Your task to perform on an android device: turn off javascript in the chrome app Image 0: 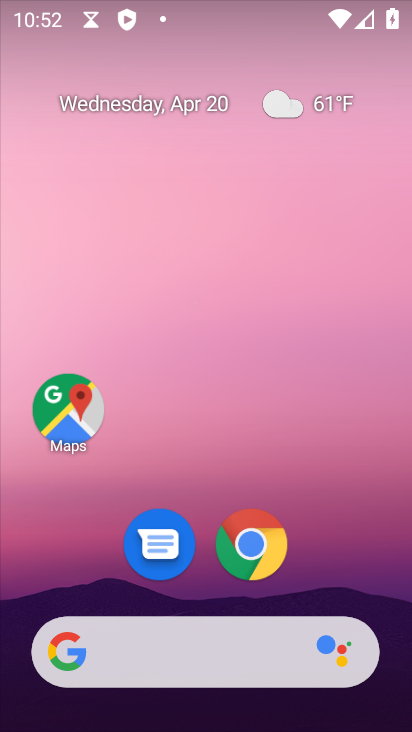
Step 0: drag from (133, 655) to (273, 138)
Your task to perform on an android device: turn off javascript in the chrome app Image 1: 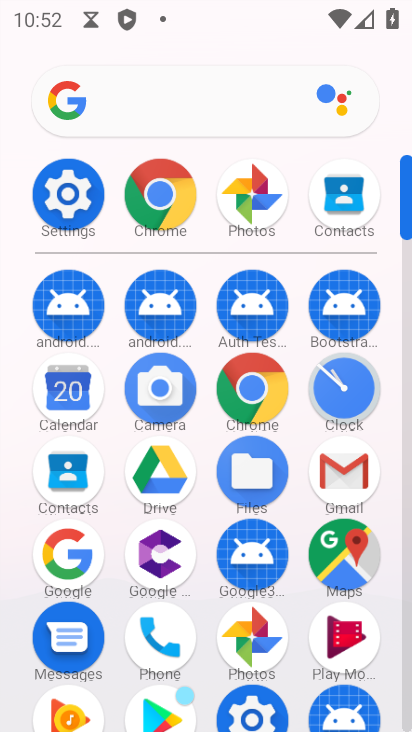
Step 1: click (161, 202)
Your task to perform on an android device: turn off javascript in the chrome app Image 2: 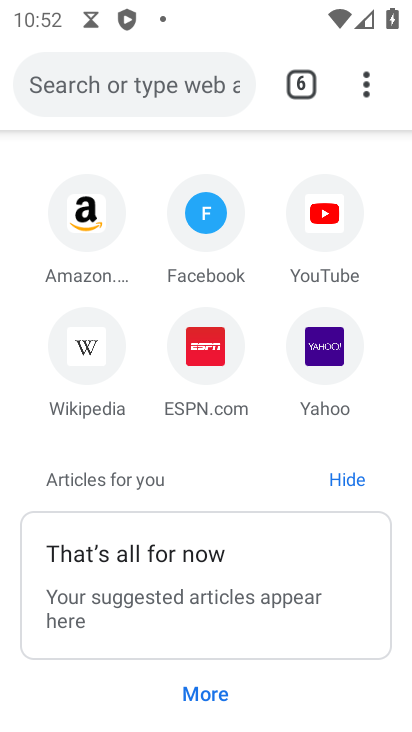
Step 2: click (358, 101)
Your task to perform on an android device: turn off javascript in the chrome app Image 3: 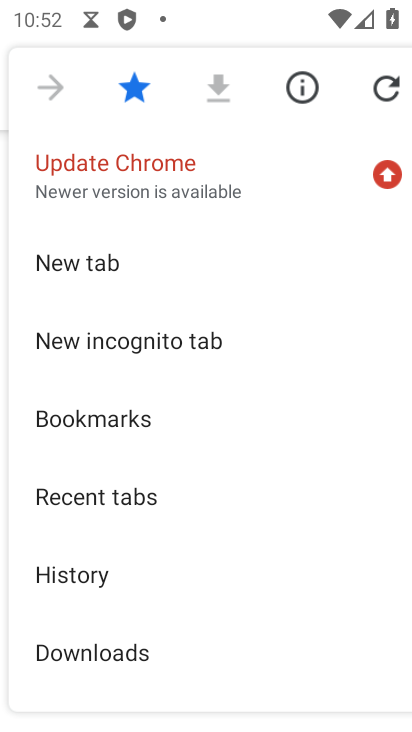
Step 3: drag from (144, 612) to (308, 167)
Your task to perform on an android device: turn off javascript in the chrome app Image 4: 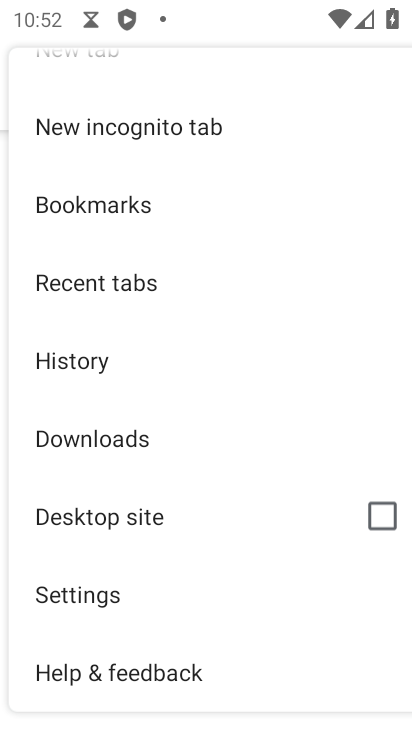
Step 4: click (95, 596)
Your task to perform on an android device: turn off javascript in the chrome app Image 5: 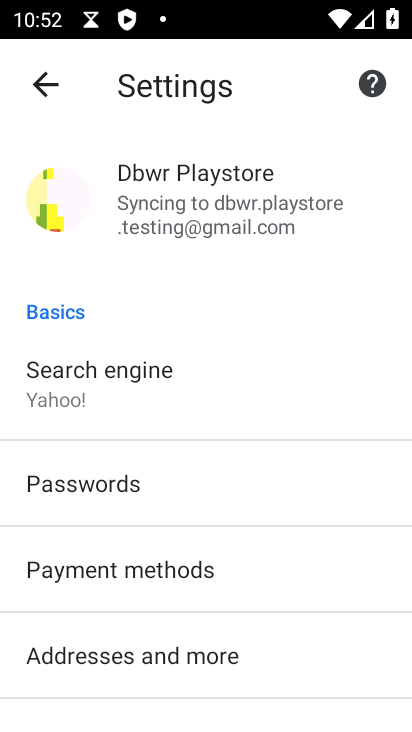
Step 5: drag from (152, 629) to (328, 154)
Your task to perform on an android device: turn off javascript in the chrome app Image 6: 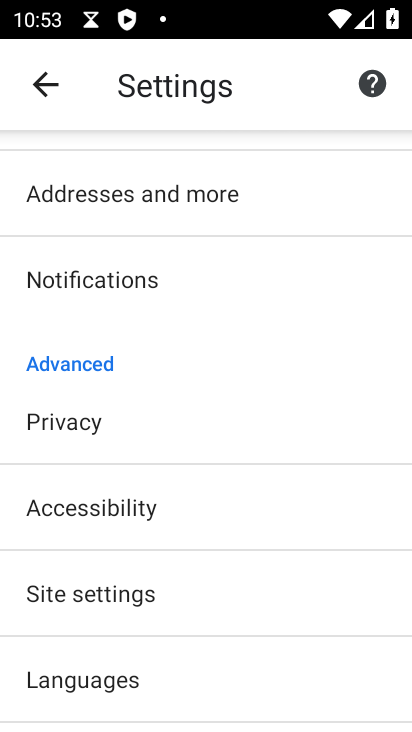
Step 6: click (109, 607)
Your task to perform on an android device: turn off javascript in the chrome app Image 7: 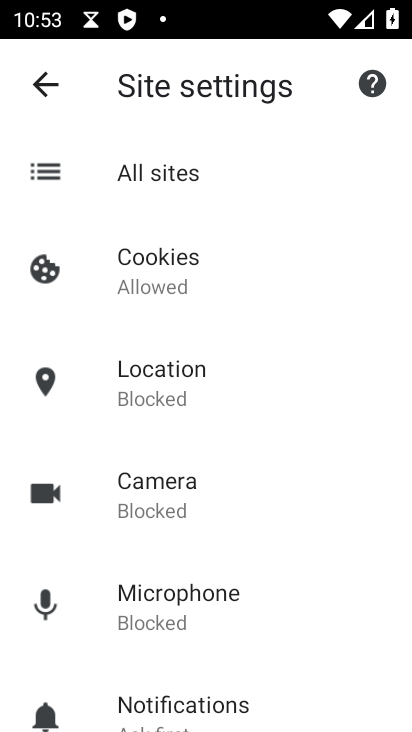
Step 7: drag from (261, 634) to (385, 111)
Your task to perform on an android device: turn off javascript in the chrome app Image 8: 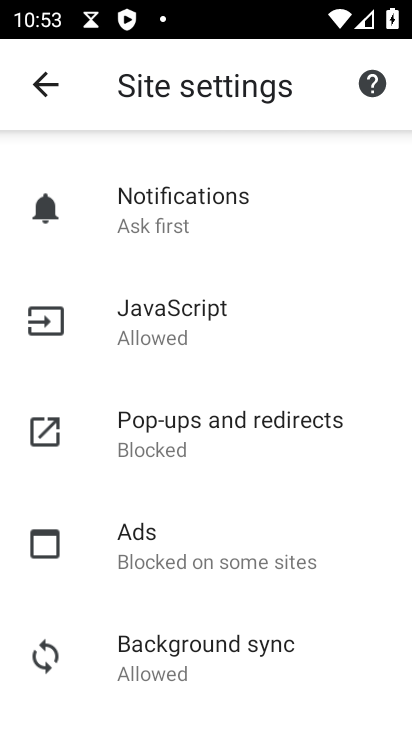
Step 8: click (187, 323)
Your task to perform on an android device: turn off javascript in the chrome app Image 9: 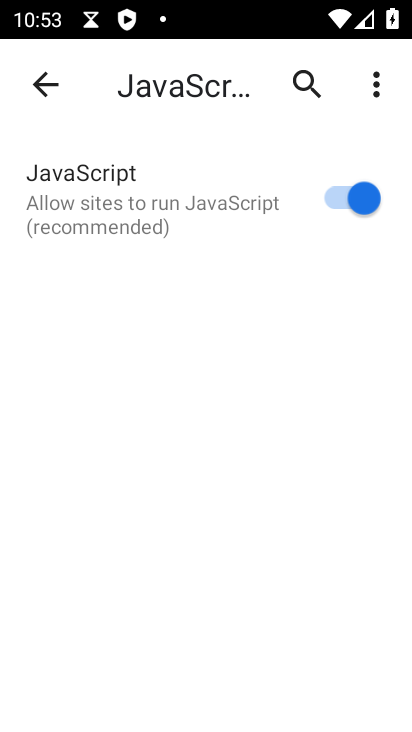
Step 9: click (341, 191)
Your task to perform on an android device: turn off javascript in the chrome app Image 10: 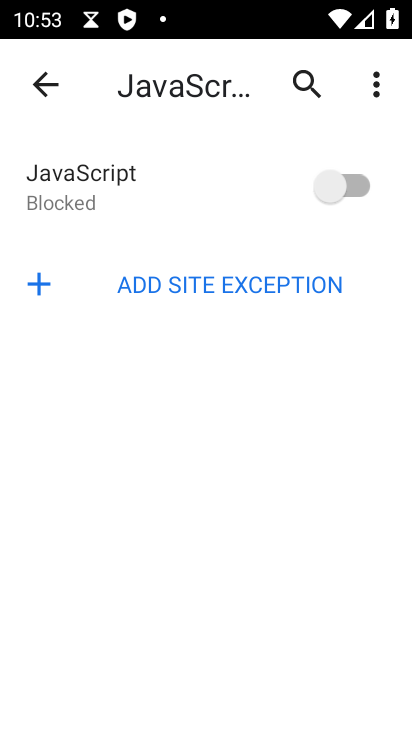
Step 10: task complete